Your task to perform on an android device: Show me popular videos on Youtube Image 0: 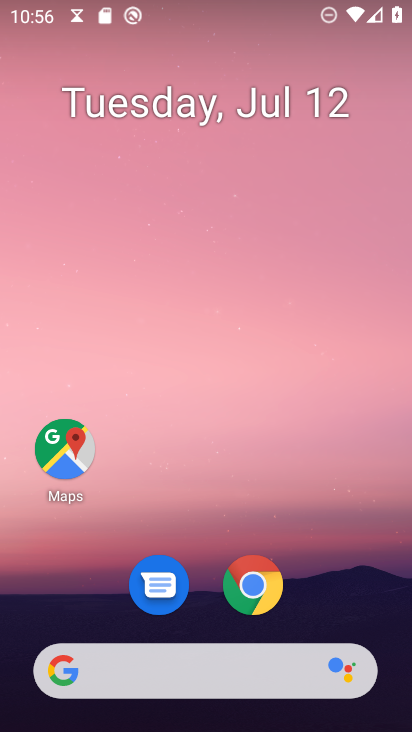
Step 0: press home button
Your task to perform on an android device: Show me popular videos on Youtube Image 1: 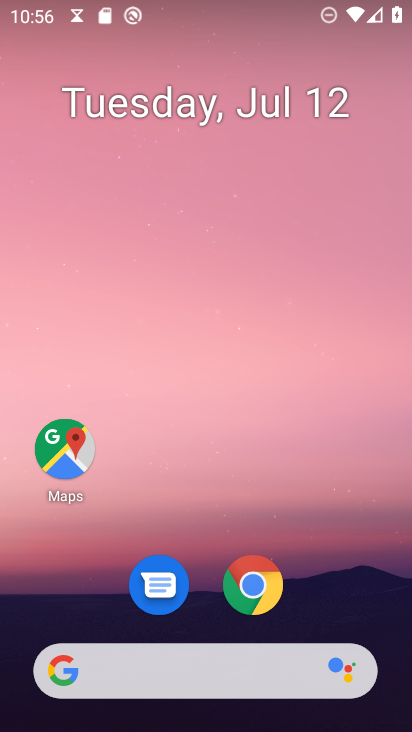
Step 1: drag from (230, 674) to (226, 92)
Your task to perform on an android device: Show me popular videos on Youtube Image 2: 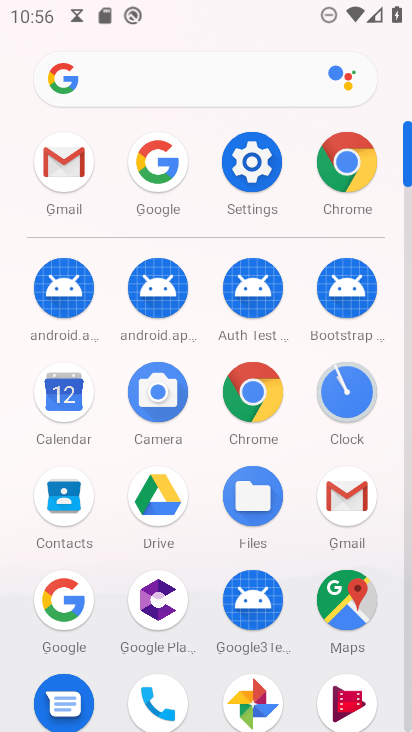
Step 2: drag from (274, 672) to (281, 253)
Your task to perform on an android device: Show me popular videos on Youtube Image 3: 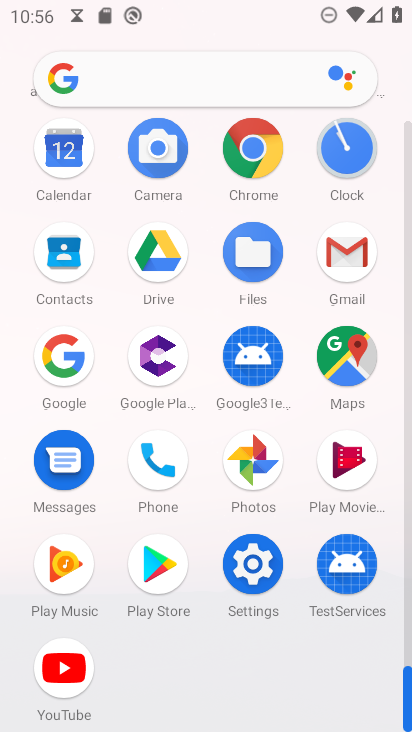
Step 3: click (69, 676)
Your task to perform on an android device: Show me popular videos on Youtube Image 4: 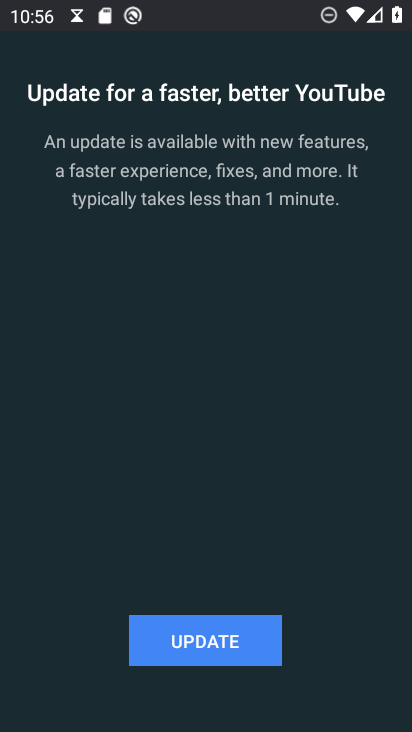
Step 4: click (203, 650)
Your task to perform on an android device: Show me popular videos on Youtube Image 5: 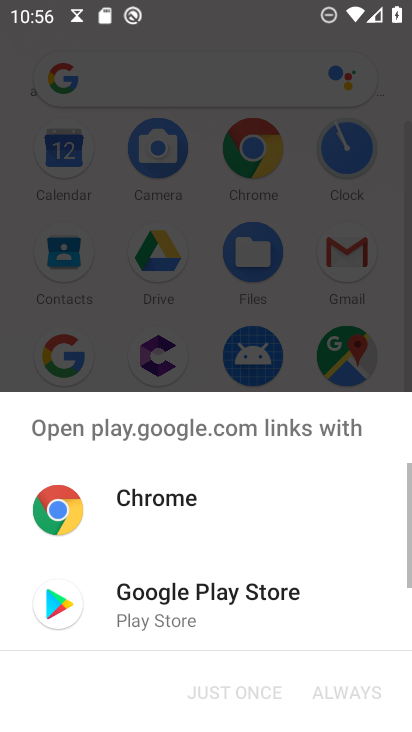
Step 5: click (186, 601)
Your task to perform on an android device: Show me popular videos on Youtube Image 6: 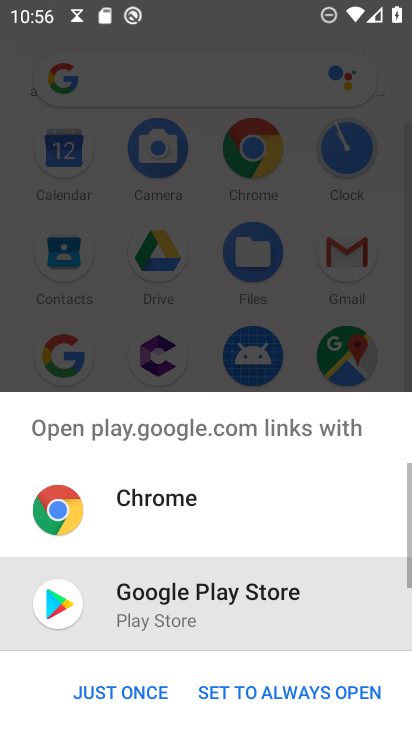
Step 6: click (138, 705)
Your task to perform on an android device: Show me popular videos on Youtube Image 7: 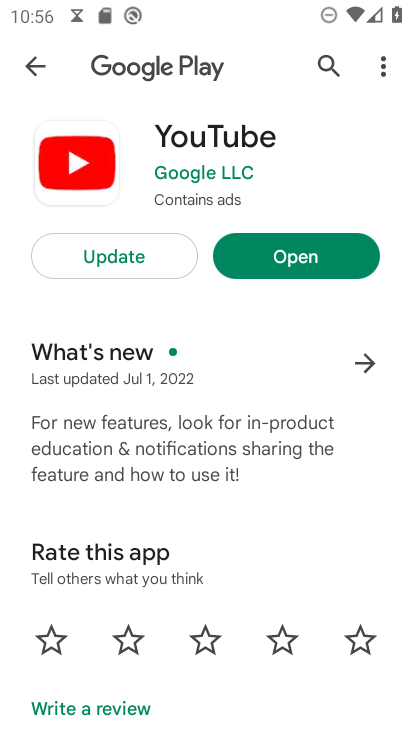
Step 7: click (110, 260)
Your task to perform on an android device: Show me popular videos on Youtube Image 8: 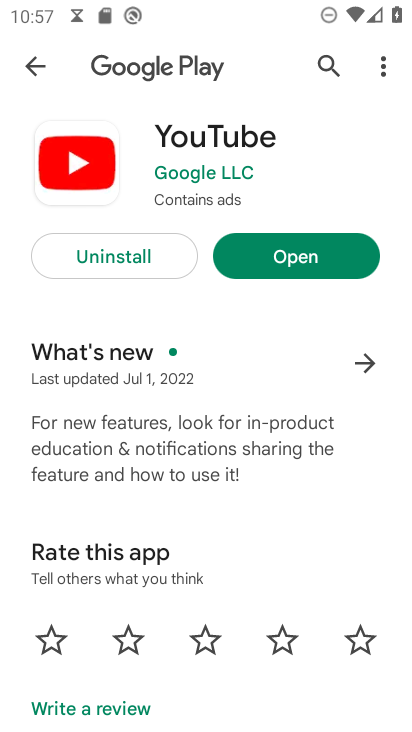
Step 8: click (296, 253)
Your task to perform on an android device: Show me popular videos on Youtube Image 9: 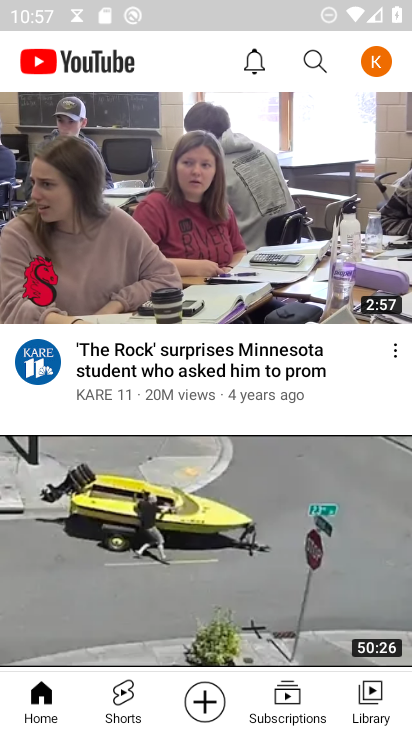
Step 9: task complete